Your task to perform on an android device: Open internet settings Image 0: 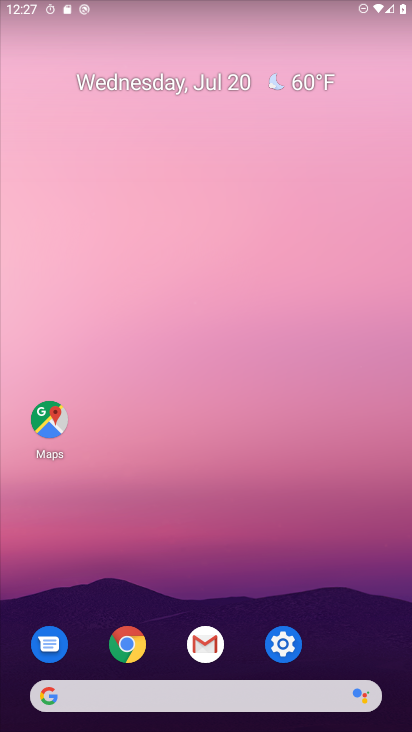
Step 0: click (286, 639)
Your task to perform on an android device: Open internet settings Image 1: 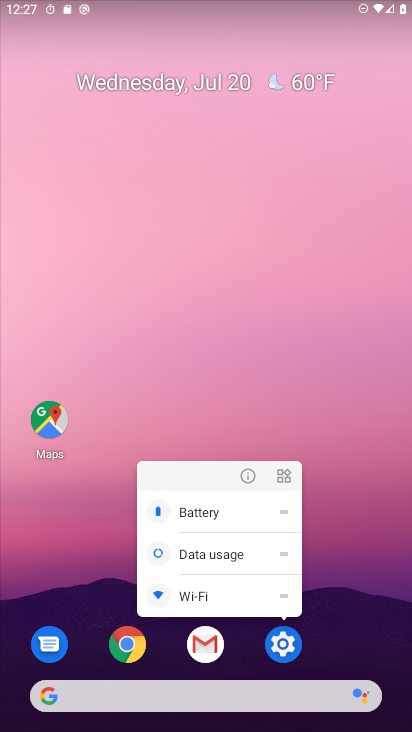
Step 1: click (280, 646)
Your task to perform on an android device: Open internet settings Image 2: 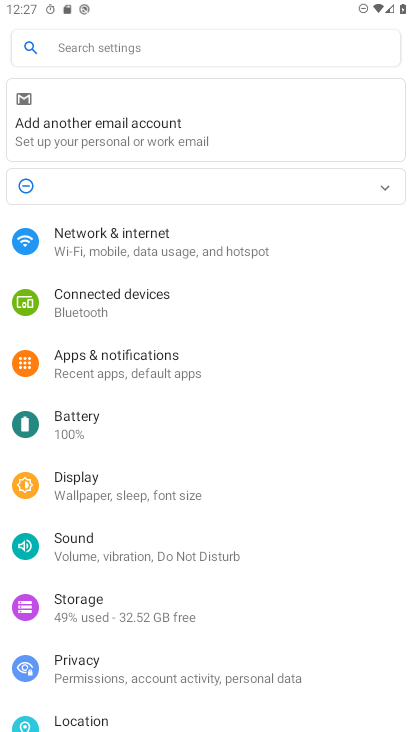
Step 2: click (125, 242)
Your task to perform on an android device: Open internet settings Image 3: 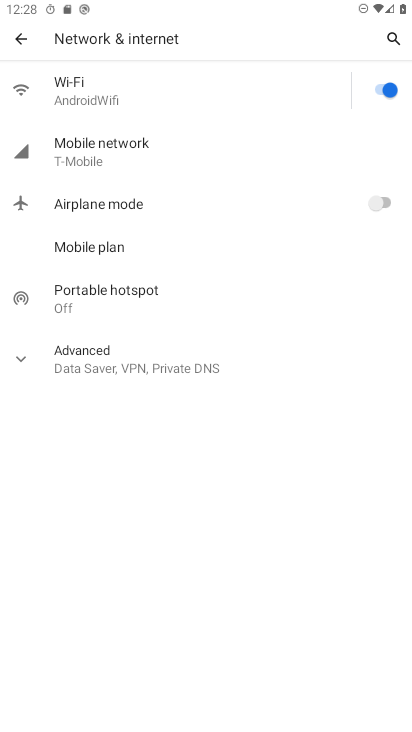
Step 3: task complete